Your task to perform on an android device: add a contact in the contacts app Image 0: 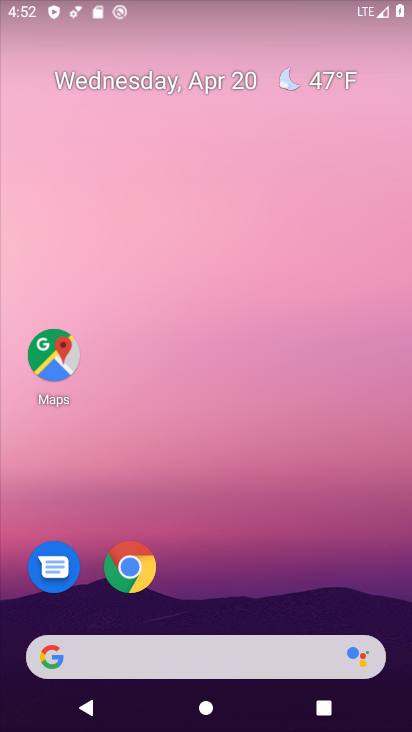
Step 0: drag from (336, 610) to (196, 53)
Your task to perform on an android device: add a contact in the contacts app Image 1: 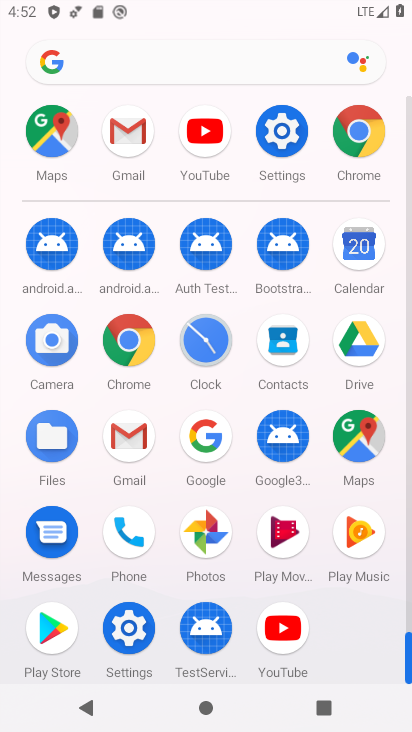
Step 1: click (284, 338)
Your task to perform on an android device: add a contact in the contacts app Image 2: 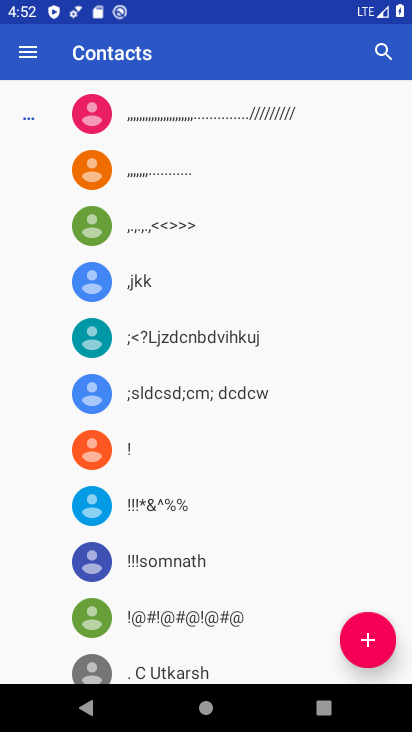
Step 2: click (354, 636)
Your task to perform on an android device: add a contact in the contacts app Image 3: 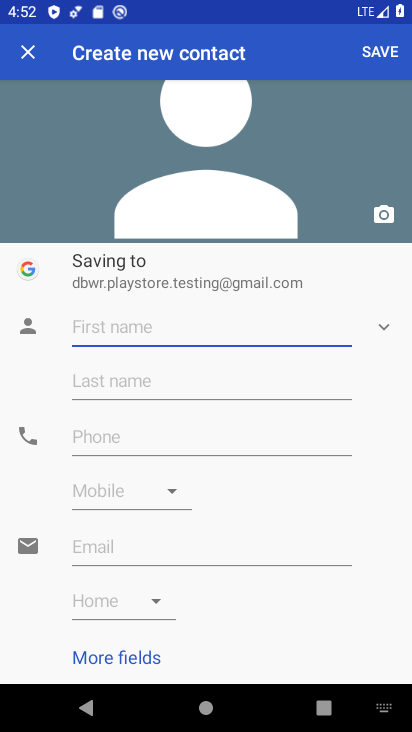
Step 3: type "Dsaf"
Your task to perform on an android device: add a contact in the contacts app Image 4: 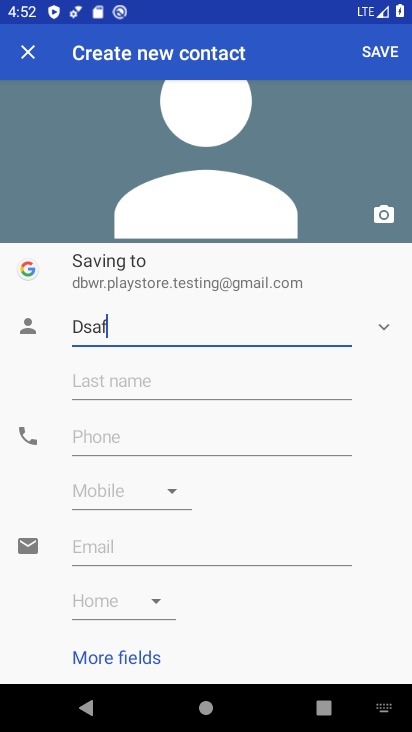
Step 4: type ""
Your task to perform on an android device: add a contact in the contacts app Image 5: 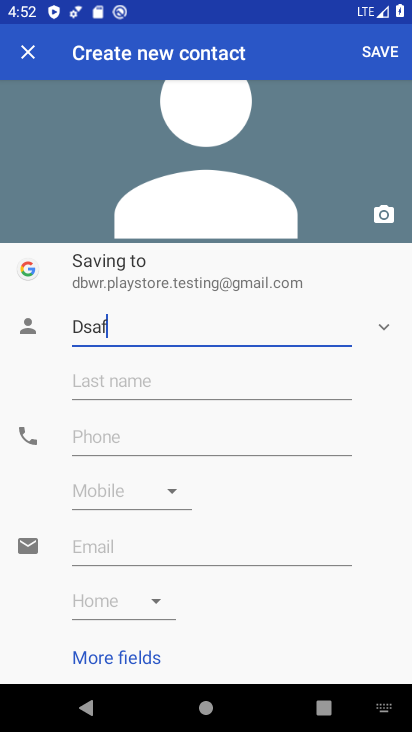
Step 5: click (146, 435)
Your task to perform on an android device: add a contact in the contacts app Image 6: 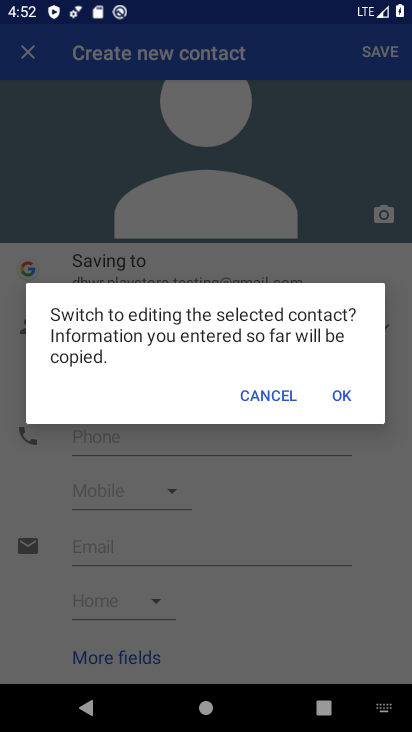
Step 6: click (343, 399)
Your task to perform on an android device: add a contact in the contacts app Image 7: 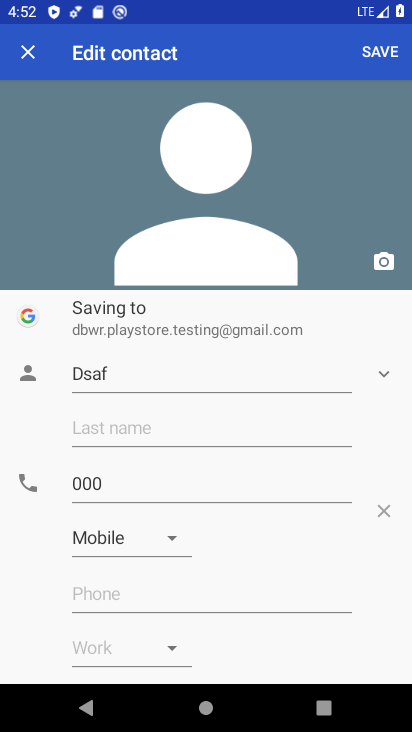
Step 7: click (395, 43)
Your task to perform on an android device: add a contact in the contacts app Image 8: 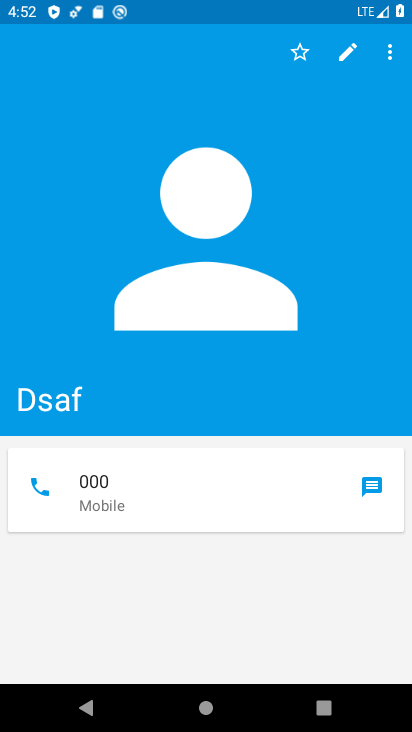
Step 8: task complete